Your task to perform on an android device: check data usage Image 0: 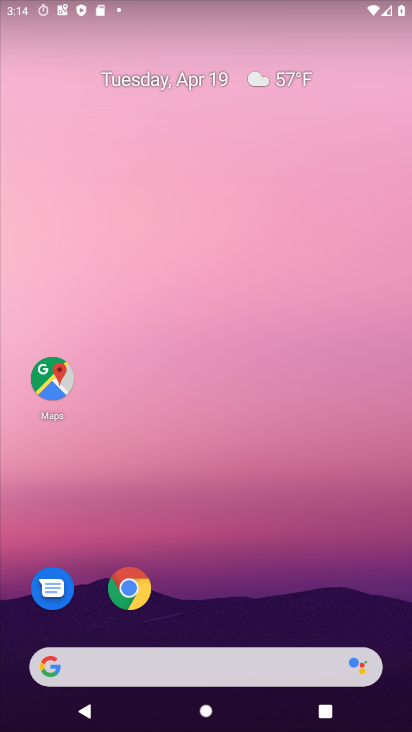
Step 0: drag from (164, 613) to (403, 216)
Your task to perform on an android device: check data usage Image 1: 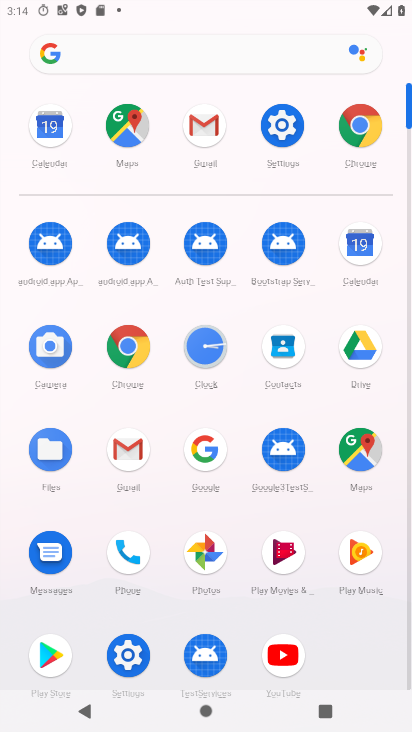
Step 1: click (270, 126)
Your task to perform on an android device: check data usage Image 2: 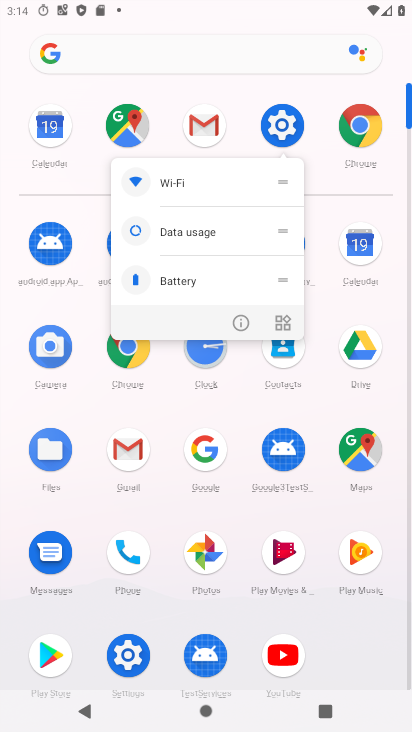
Step 2: click (199, 236)
Your task to perform on an android device: check data usage Image 3: 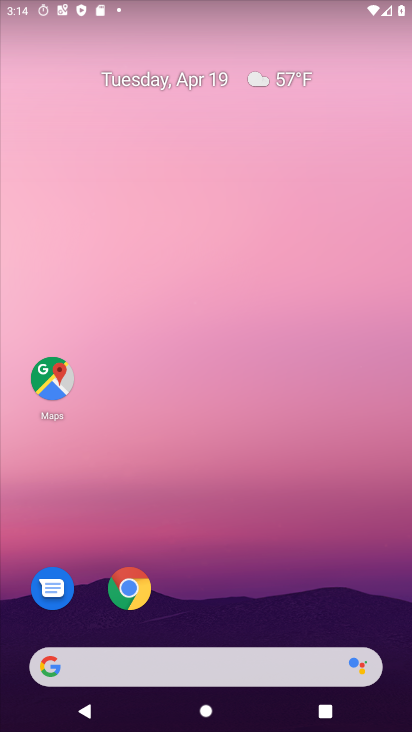
Step 3: drag from (206, 633) to (400, 118)
Your task to perform on an android device: check data usage Image 4: 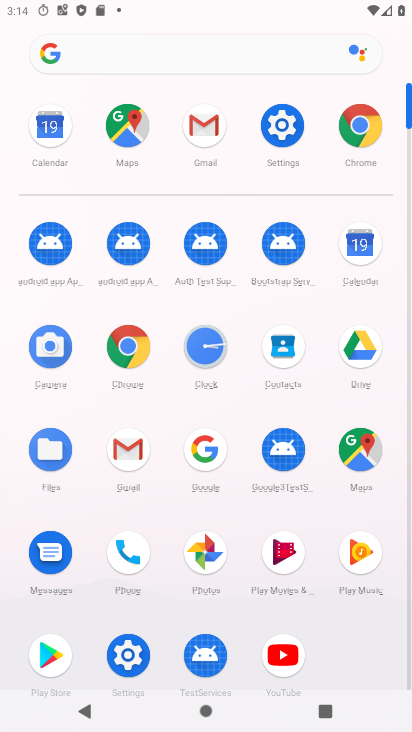
Step 4: click (291, 219)
Your task to perform on an android device: check data usage Image 5: 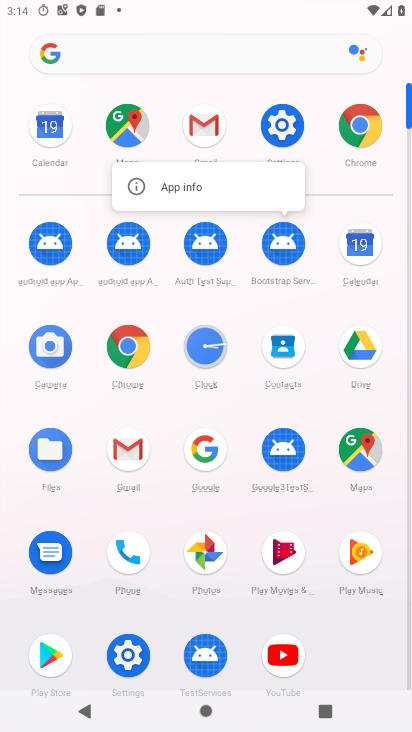
Step 5: click (277, 120)
Your task to perform on an android device: check data usage Image 6: 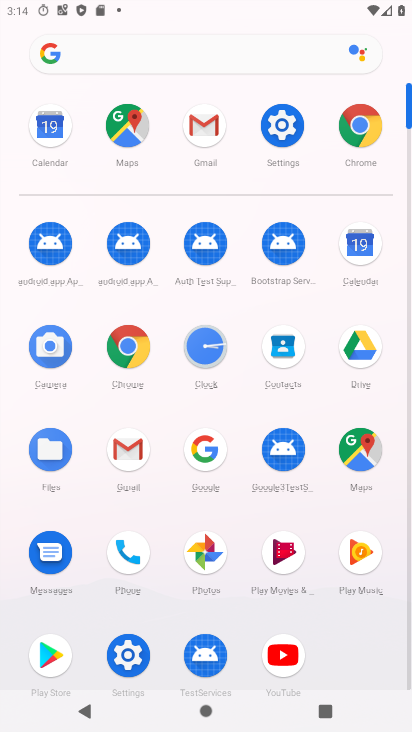
Step 6: click (277, 120)
Your task to perform on an android device: check data usage Image 7: 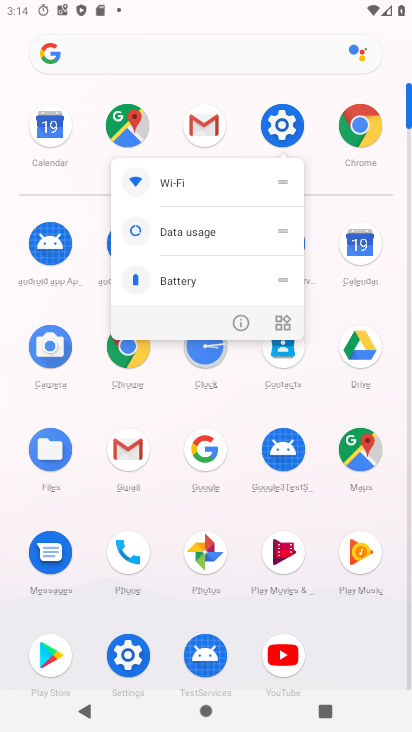
Step 7: click (239, 324)
Your task to perform on an android device: check data usage Image 8: 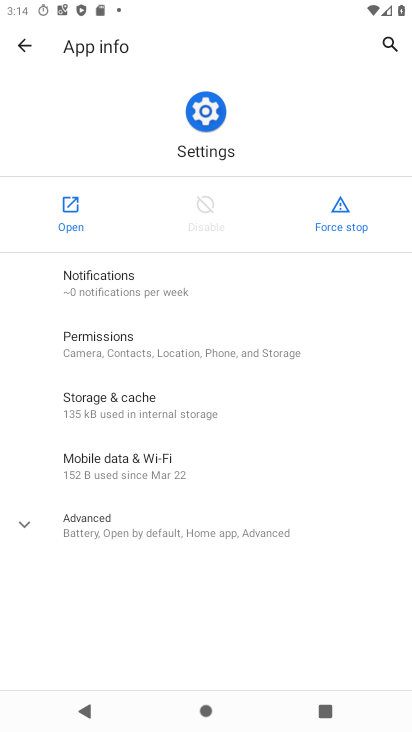
Step 8: click (58, 211)
Your task to perform on an android device: check data usage Image 9: 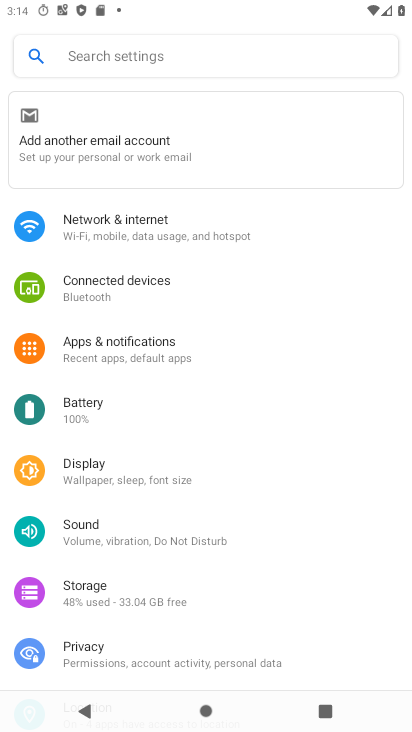
Step 9: click (147, 234)
Your task to perform on an android device: check data usage Image 10: 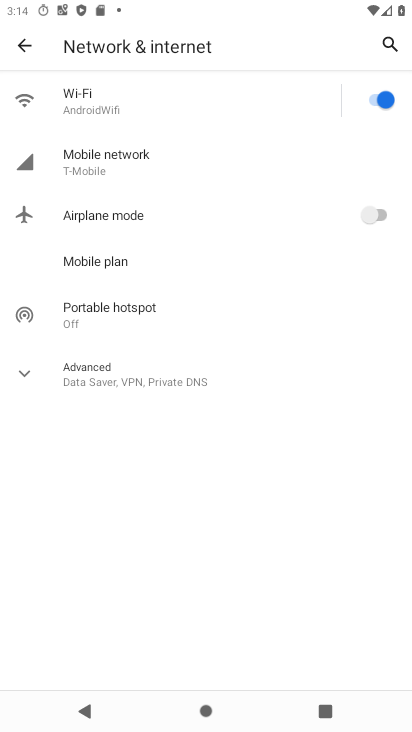
Step 10: click (132, 161)
Your task to perform on an android device: check data usage Image 11: 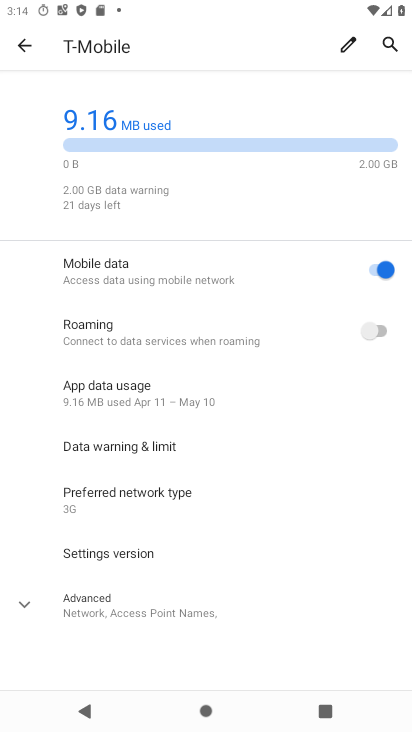
Step 11: drag from (223, 198) to (251, 603)
Your task to perform on an android device: check data usage Image 12: 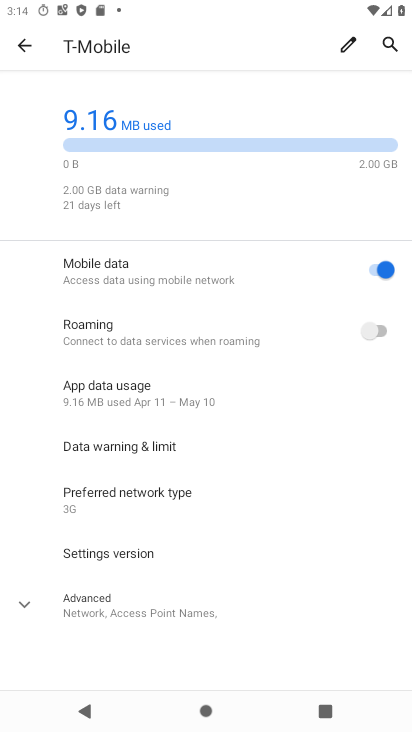
Step 12: click (179, 120)
Your task to perform on an android device: check data usage Image 13: 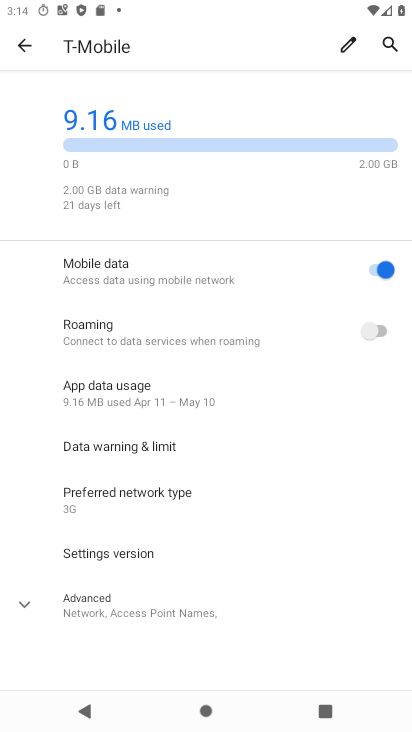
Step 13: task complete